Your task to perform on an android device: check google app version Image 0: 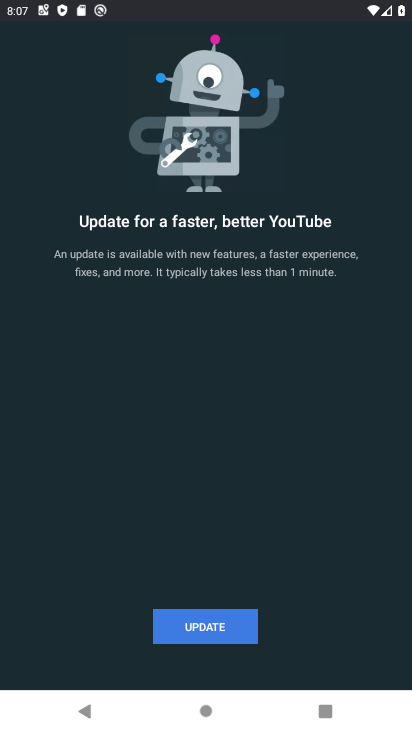
Step 0: press home button
Your task to perform on an android device: check google app version Image 1: 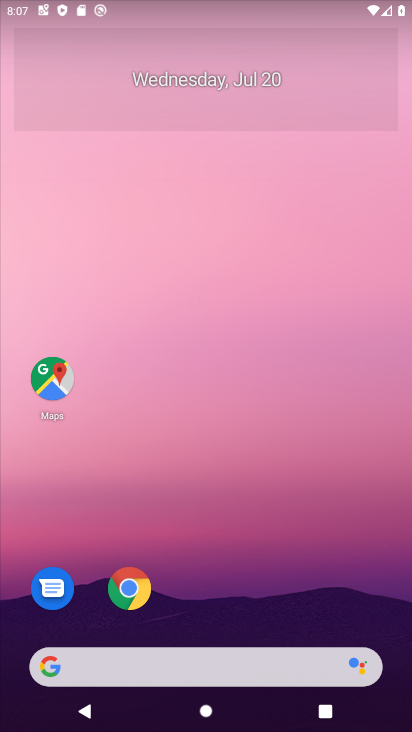
Step 1: drag from (248, 706) to (316, 22)
Your task to perform on an android device: check google app version Image 2: 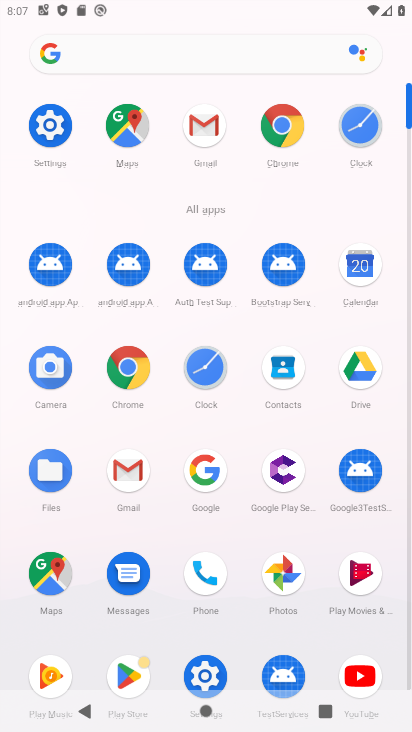
Step 2: click (198, 471)
Your task to perform on an android device: check google app version Image 3: 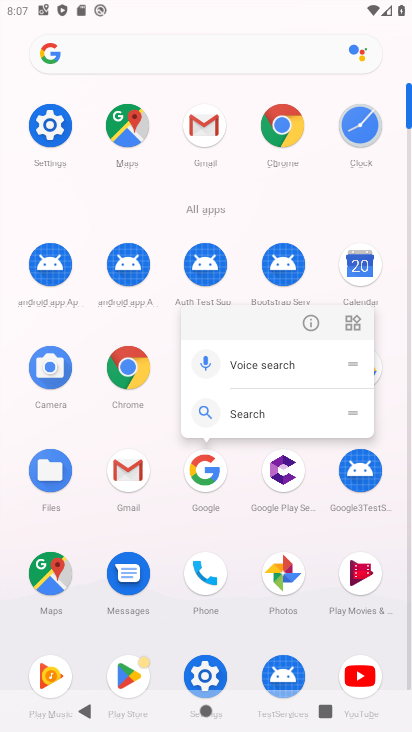
Step 3: click (315, 324)
Your task to perform on an android device: check google app version Image 4: 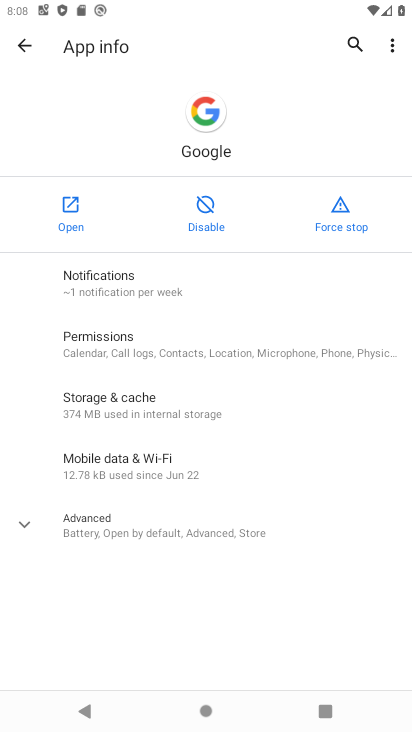
Step 4: click (163, 524)
Your task to perform on an android device: check google app version Image 5: 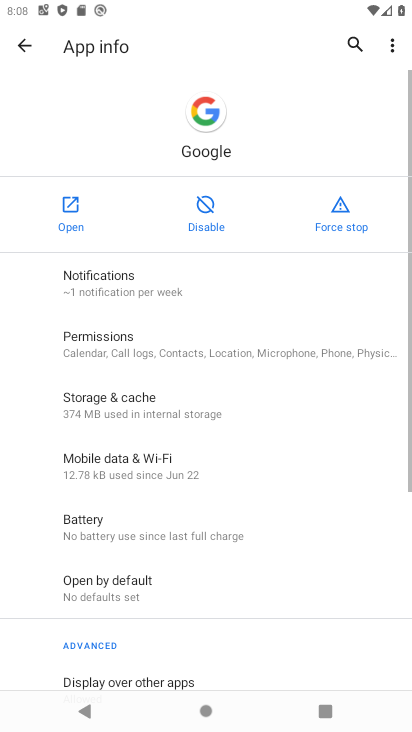
Step 5: task complete